Your task to perform on an android device: Open calendar and show me the third week of next month Image 0: 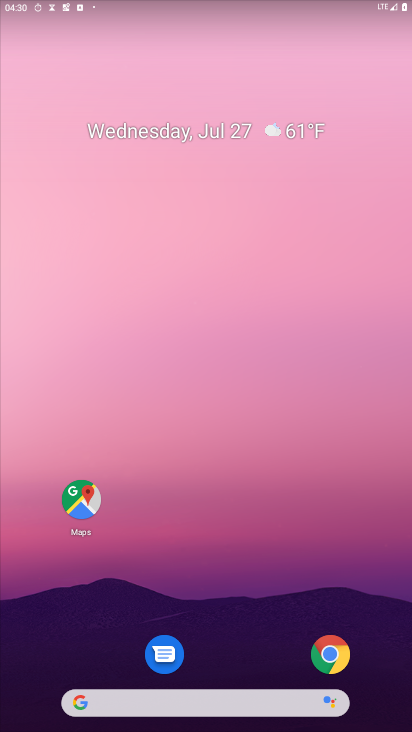
Step 0: drag from (236, 702) to (294, 151)
Your task to perform on an android device: Open calendar and show me the third week of next month Image 1: 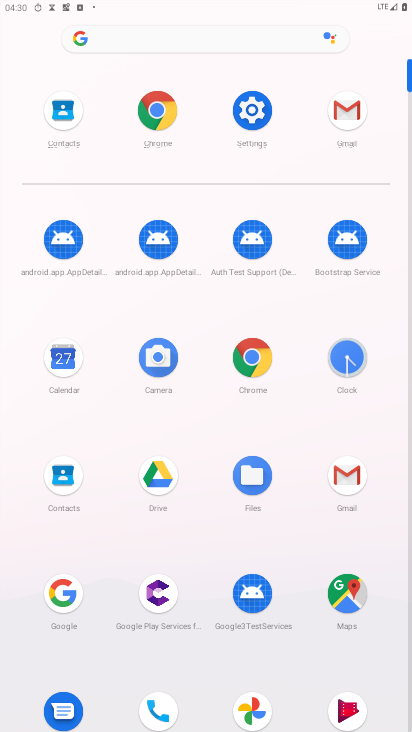
Step 1: click (57, 357)
Your task to perform on an android device: Open calendar and show me the third week of next month Image 2: 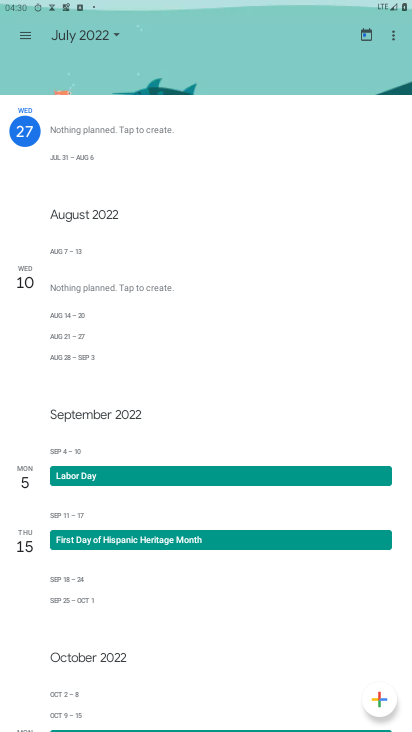
Step 2: click (112, 29)
Your task to perform on an android device: Open calendar and show me the third week of next month Image 3: 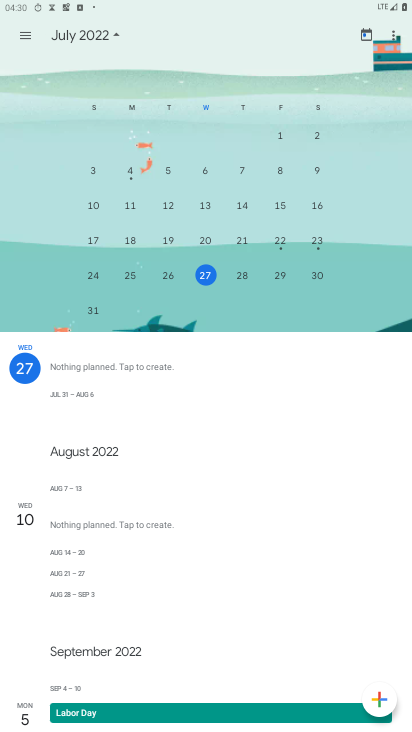
Step 3: drag from (254, 218) to (77, 250)
Your task to perform on an android device: Open calendar and show me the third week of next month Image 4: 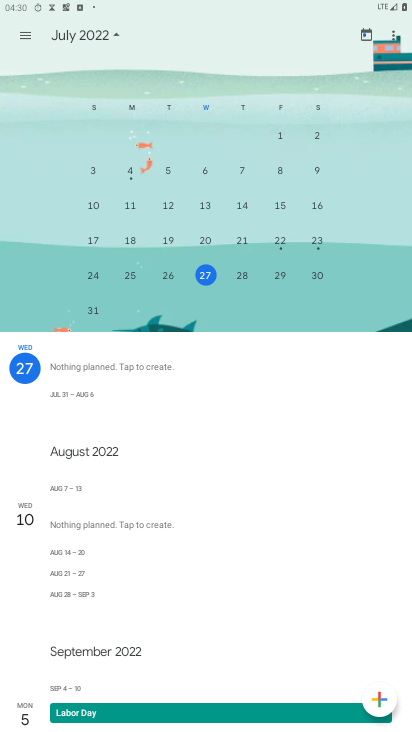
Step 4: drag from (364, 203) to (3, 233)
Your task to perform on an android device: Open calendar and show me the third week of next month Image 5: 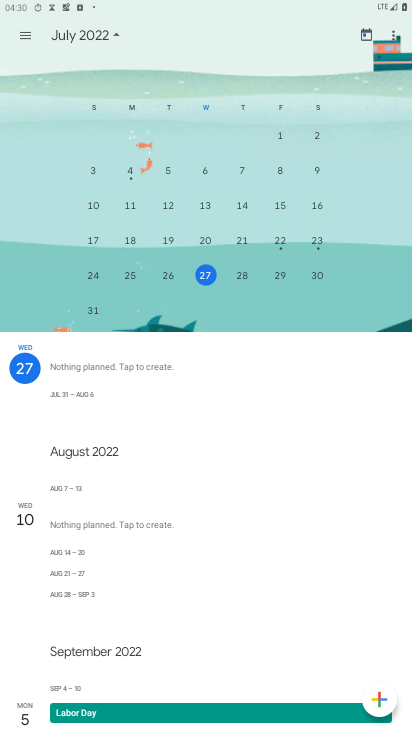
Step 5: drag from (365, 216) to (299, 53)
Your task to perform on an android device: Open calendar and show me the third week of next month Image 6: 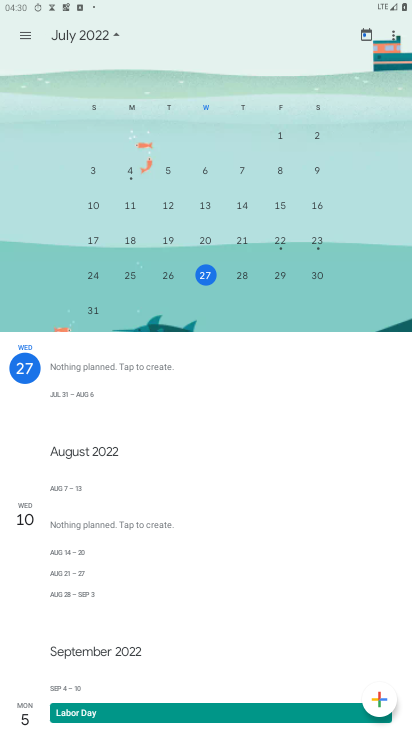
Step 6: drag from (399, 195) to (19, 478)
Your task to perform on an android device: Open calendar and show me the third week of next month Image 7: 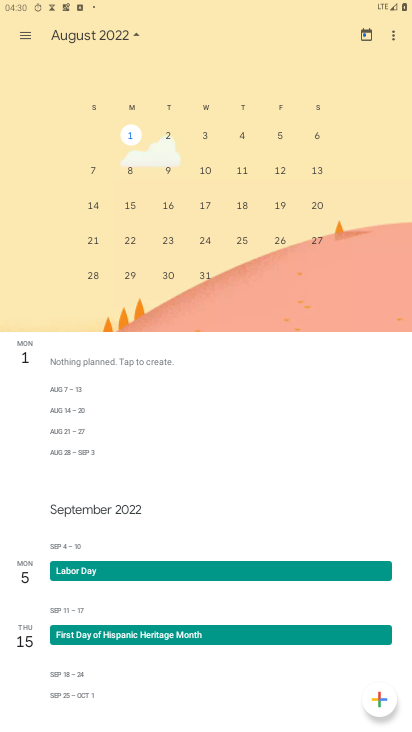
Step 7: click (200, 201)
Your task to perform on an android device: Open calendar and show me the third week of next month Image 8: 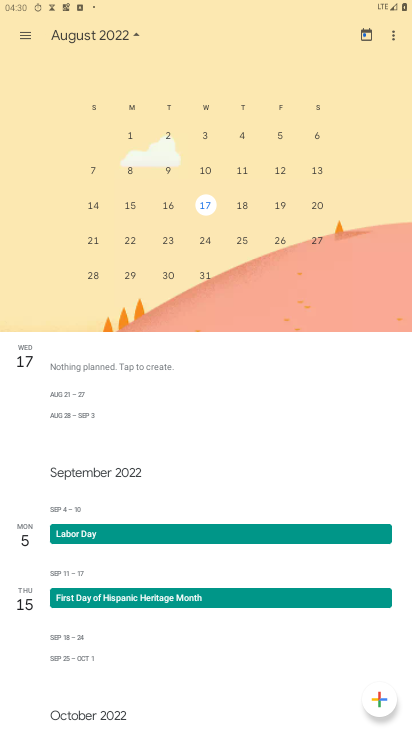
Step 8: task complete